Your task to perform on an android device: Open the calendar and show me this week's events Image 0: 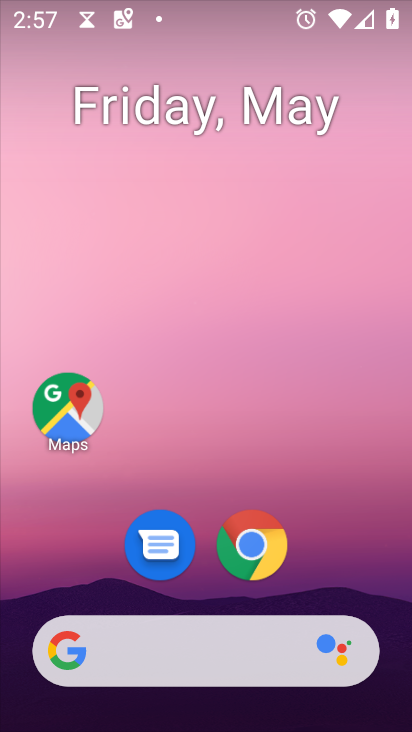
Step 0: click (183, 106)
Your task to perform on an android device: Open the calendar and show me this week's events Image 1: 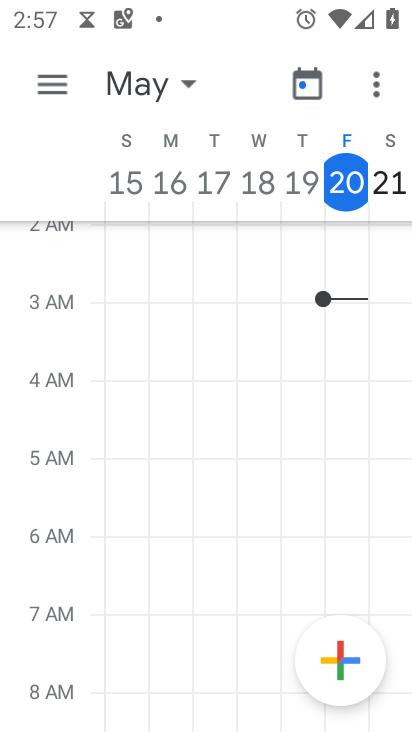
Step 1: click (170, 87)
Your task to perform on an android device: Open the calendar and show me this week's events Image 2: 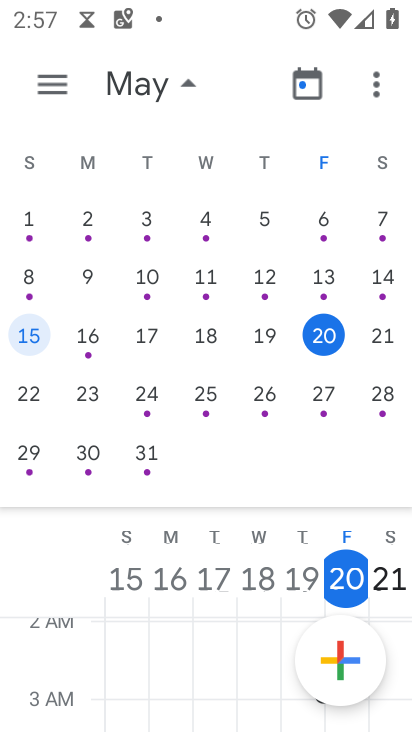
Step 2: drag from (268, 607) to (241, 253)
Your task to perform on an android device: Open the calendar and show me this week's events Image 3: 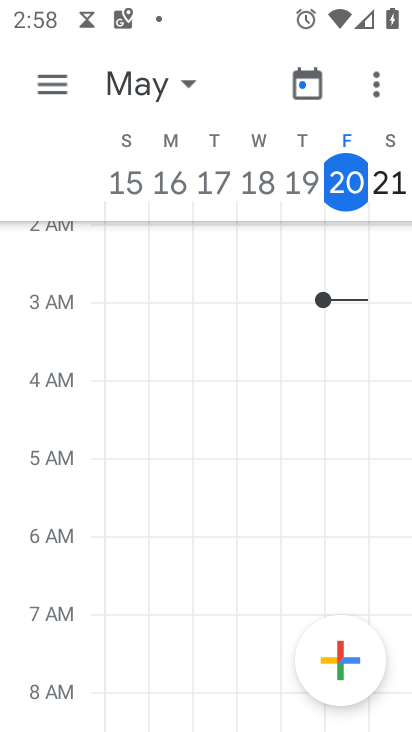
Step 3: click (51, 83)
Your task to perform on an android device: Open the calendar and show me this week's events Image 4: 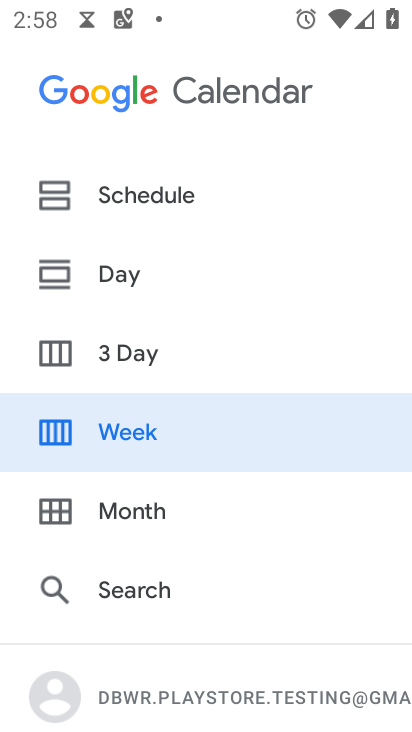
Step 4: drag from (203, 638) to (212, 263)
Your task to perform on an android device: Open the calendar and show me this week's events Image 5: 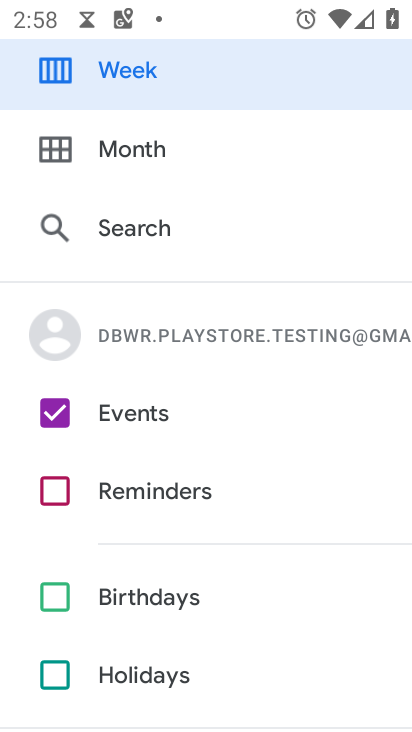
Step 5: drag from (267, 189) to (260, 668)
Your task to perform on an android device: Open the calendar and show me this week's events Image 6: 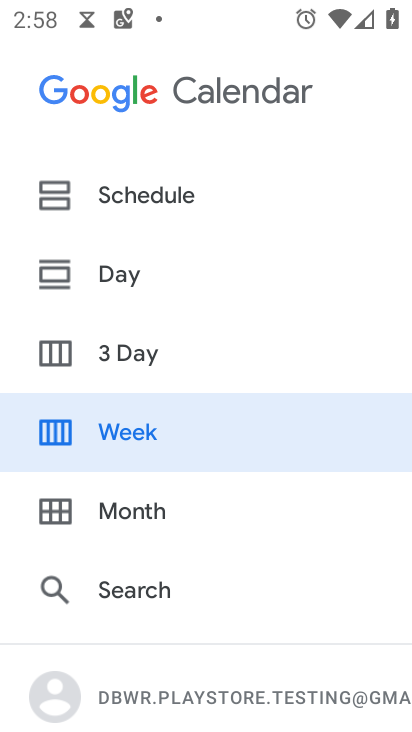
Step 6: click (254, 431)
Your task to perform on an android device: Open the calendar and show me this week's events Image 7: 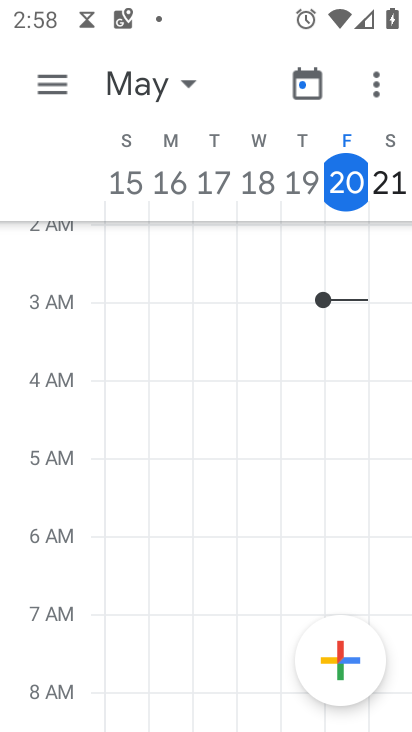
Step 7: task complete